Your task to perform on an android device: change keyboard looks Image 0: 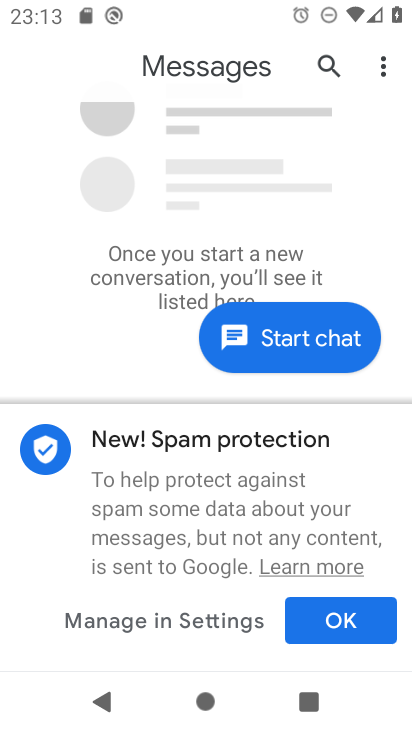
Step 0: press home button
Your task to perform on an android device: change keyboard looks Image 1: 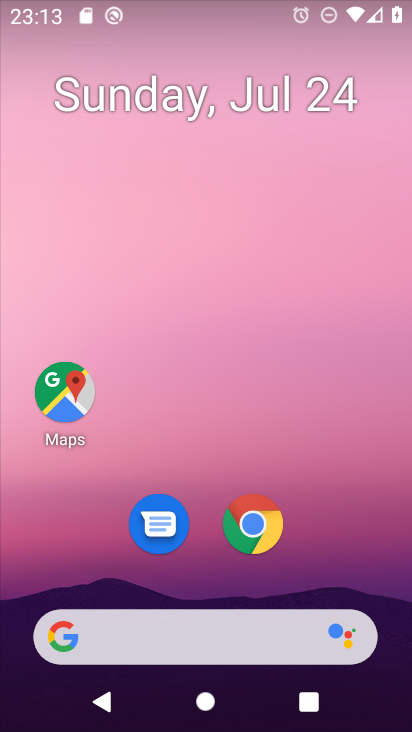
Step 1: drag from (192, 635) to (348, 80)
Your task to perform on an android device: change keyboard looks Image 2: 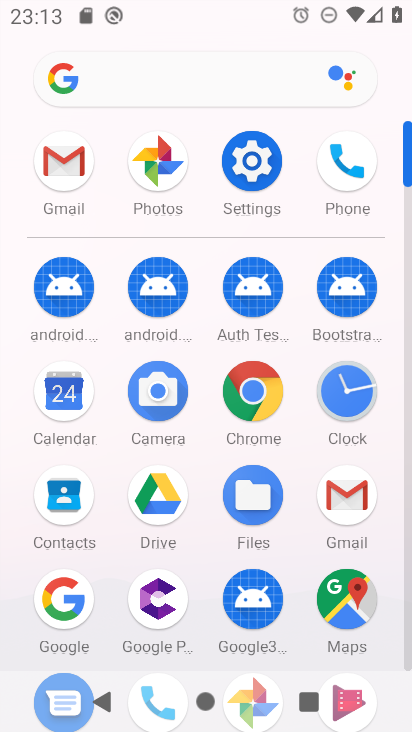
Step 2: click (246, 153)
Your task to perform on an android device: change keyboard looks Image 3: 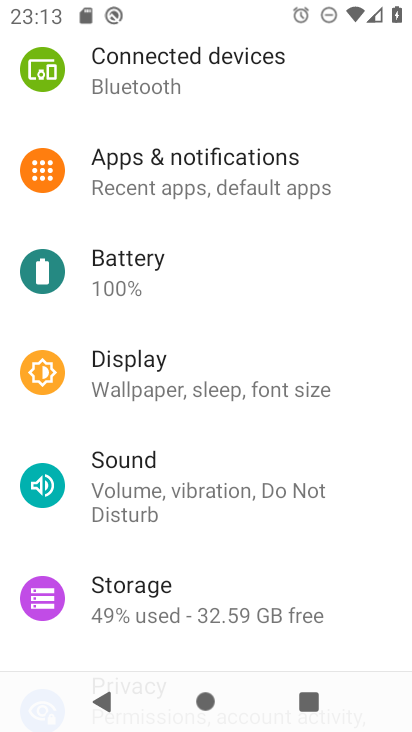
Step 3: drag from (283, 654) to (368, 107)
Your task to perform on an android device: change keyboard looks Image 4: 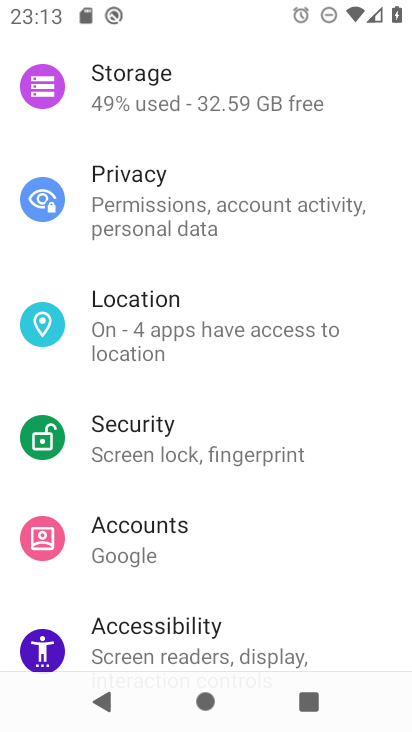
Step 4: drag from (285, 574) to (333, 108)
Your task to perform on an android device: change keyboard looks Image 5: 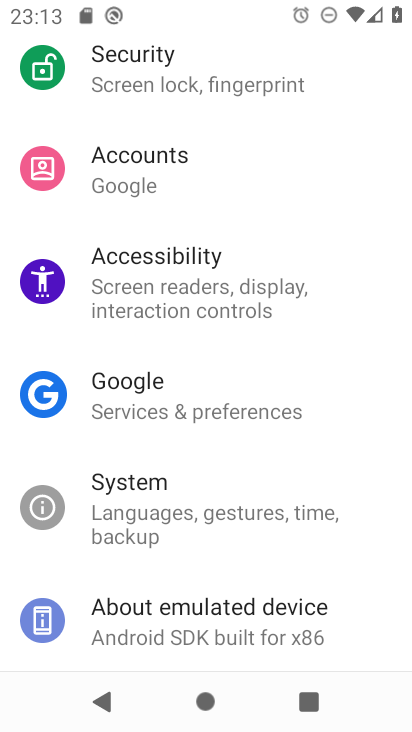
Step 5: click (162, 517)
Your task to perform on an android device: change keyboard looks Image 6: 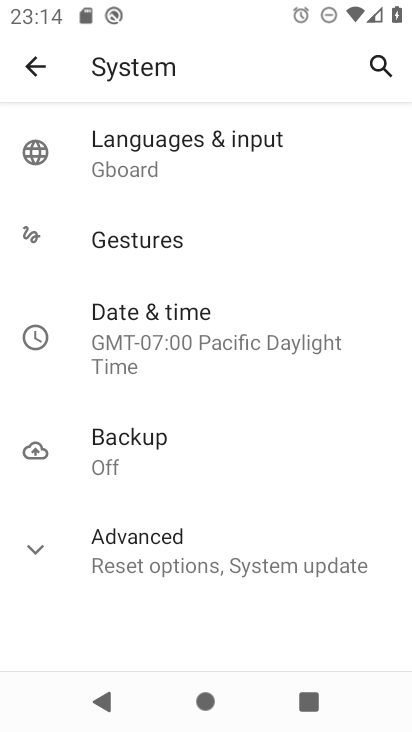
Step 6: click (184, 155)
Your task to perform on an android device: change keyboard looks Image 7: 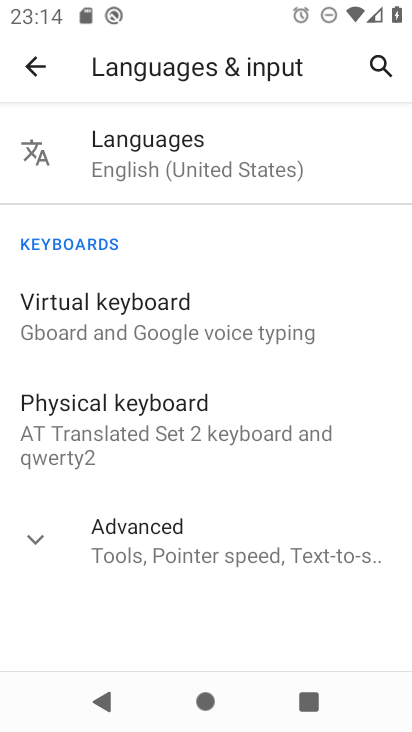
Step 7: click (98, 300)
Your task to perform on an android device: change keyboard looks Image 8: 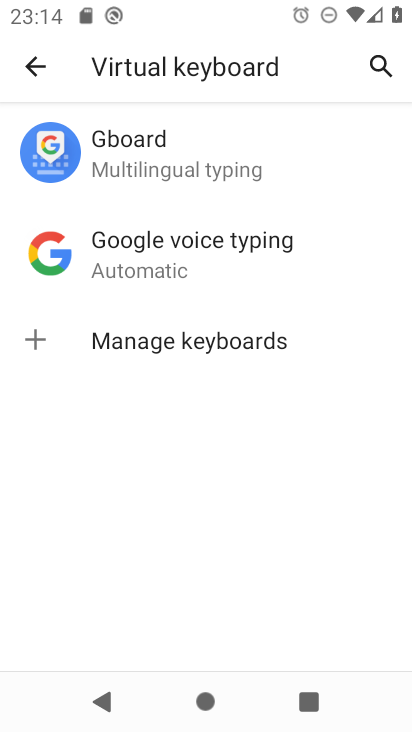
Step 8: click (90, 149)
Your task to perform on an android device: change keyboard looks Image 9: 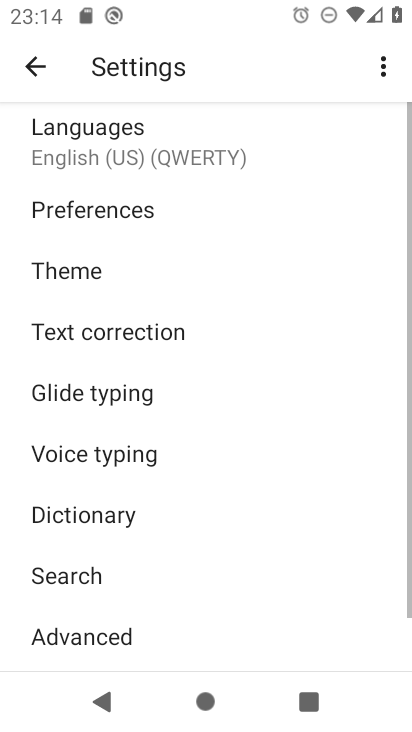
Step 9: click (88, 273)
Your task to perform on an android device: change keyboard looks Image 10: 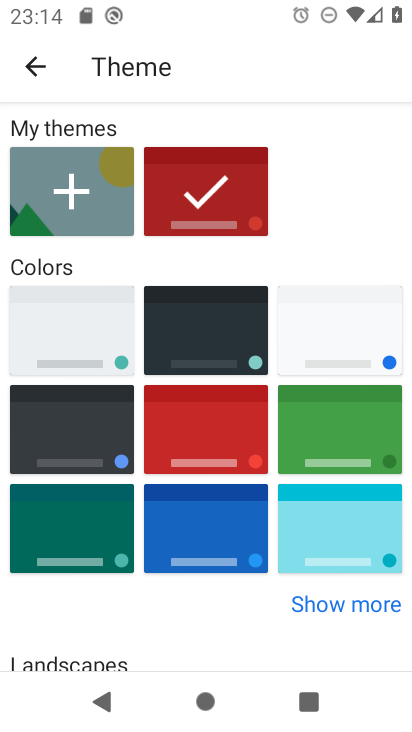
Step 10: click (179, 537)
Your task to perform on an android device: change keyboard looks Image 11: 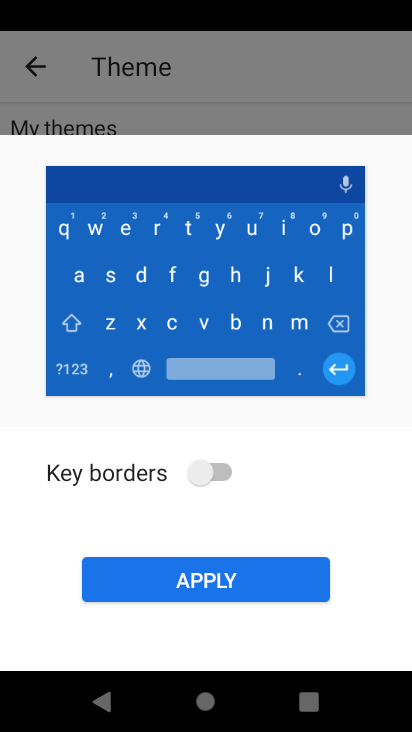
Step 11: click (209, 580)
Your task to perform on an android device: change keyboard looks Image 12: 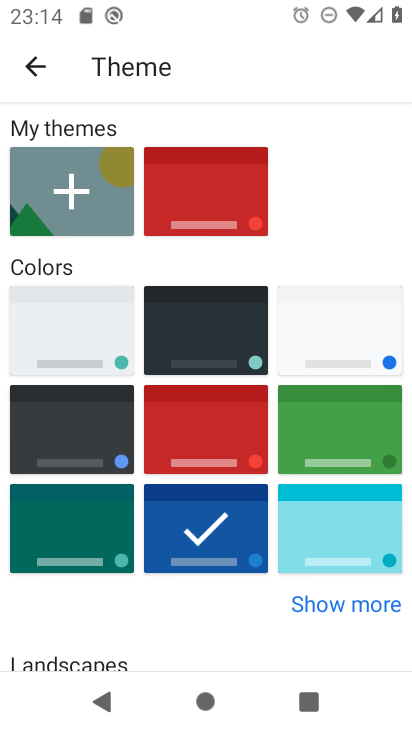
Step 12: task complete